Your task to perform on an android device: check storage Image 0: 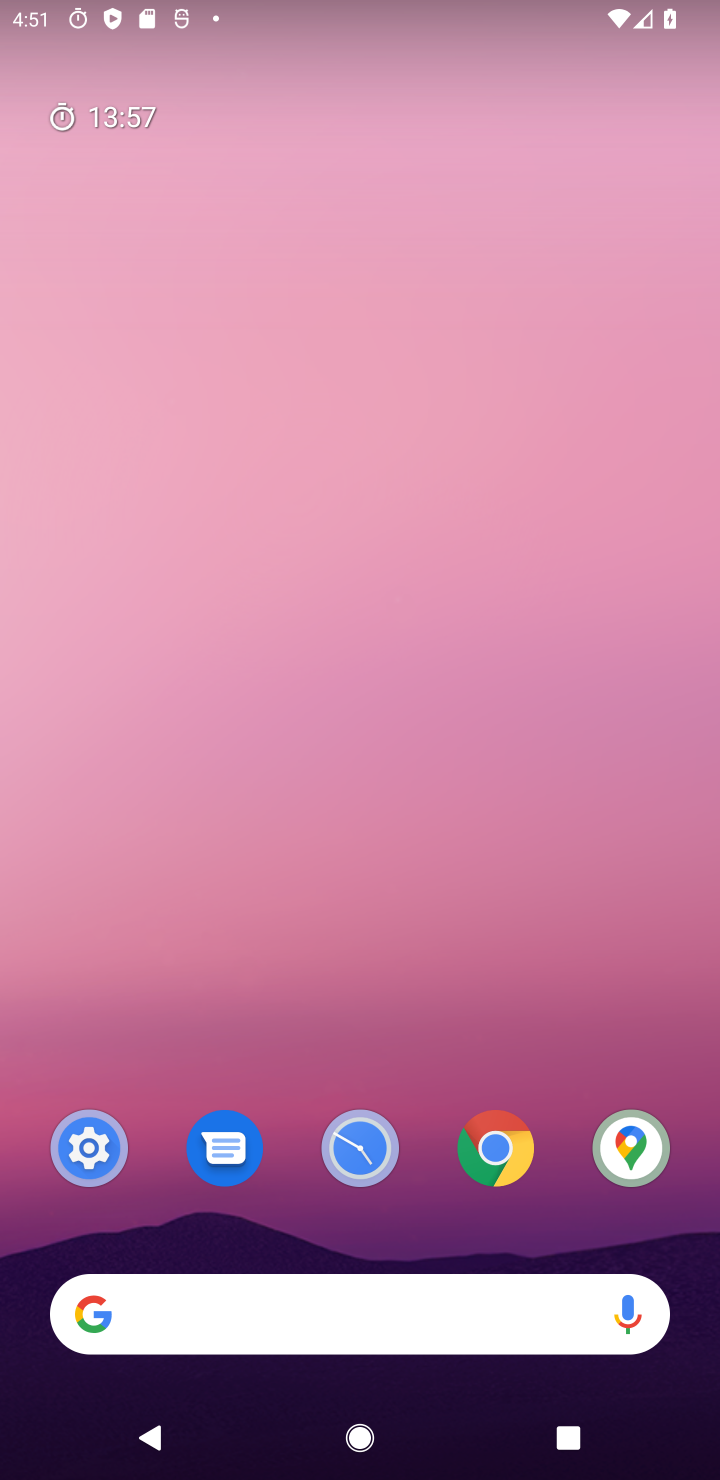
Step 0: drag from (406, 1196) to (530, 0)
Your task to perform on an android device: check storage Image 1: 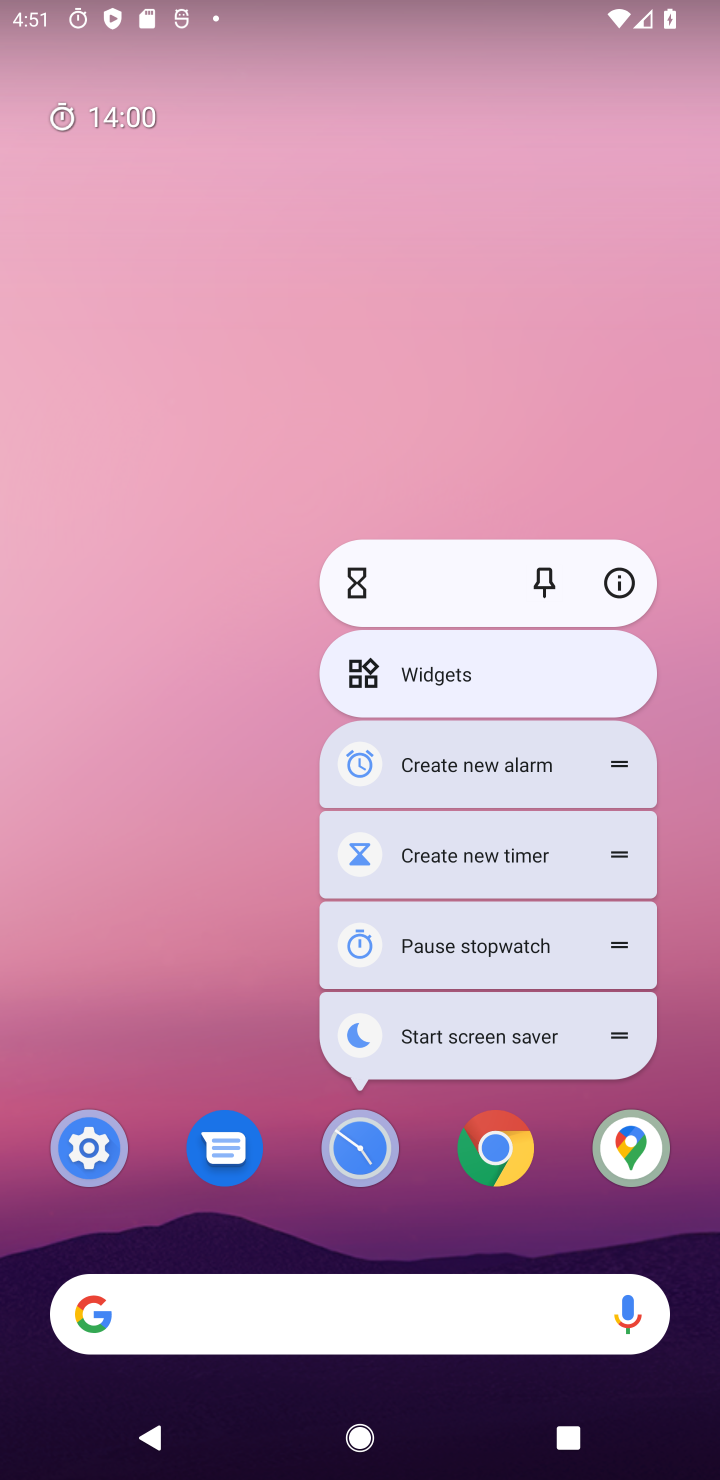
Step 1: click (191, 841)
Your task to perform on an android device: check storage Image 2: 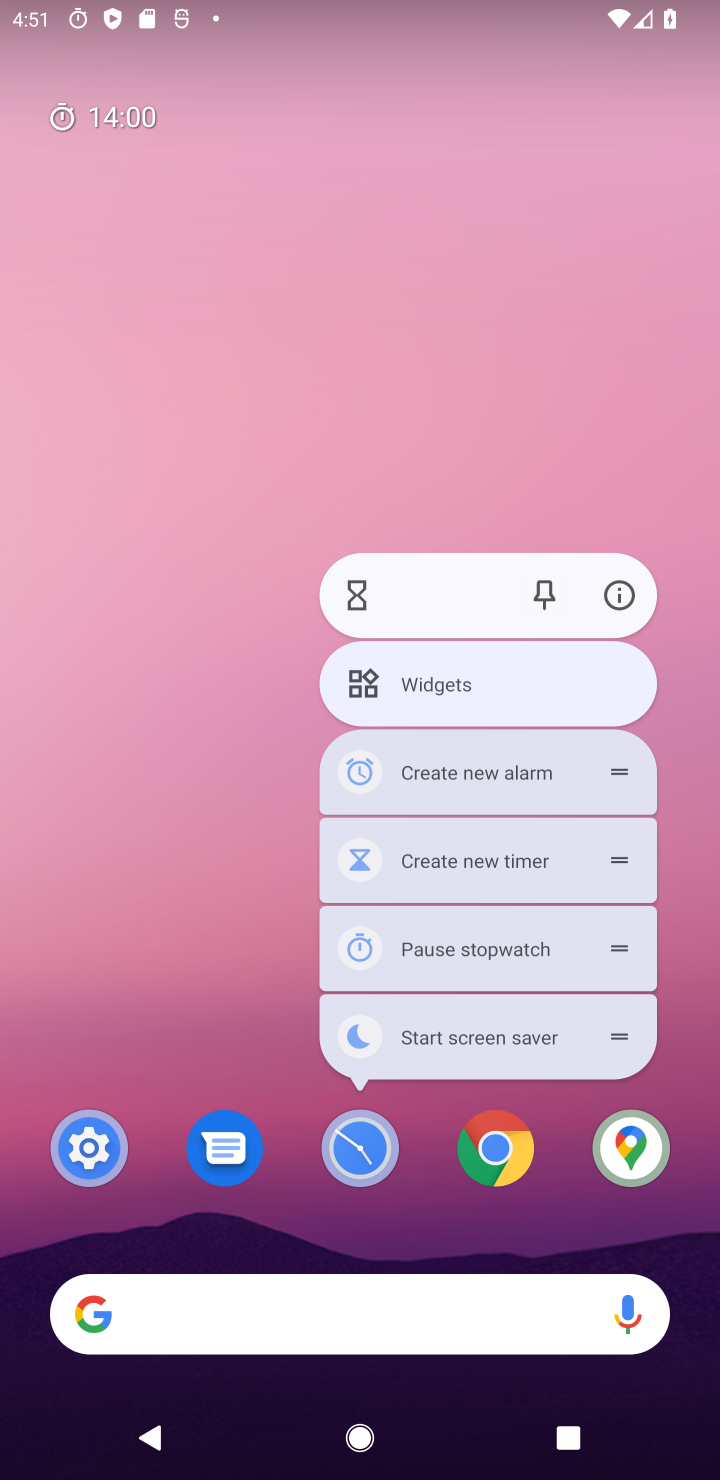
Step 2: drag from (397, 805) to (606, 16)
Your task to perform on an android device: check storage Image 3: 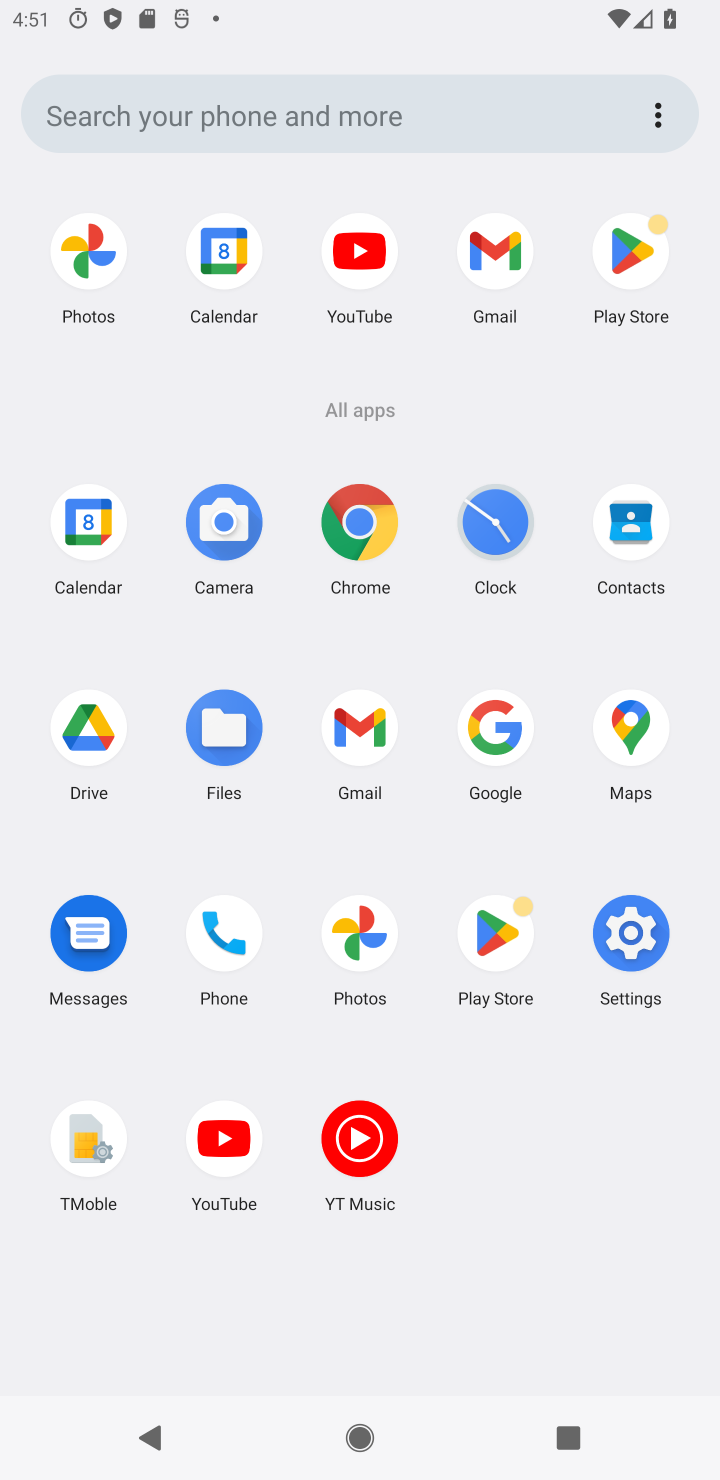
Step 3: click (620, 906)
Your task to perform on an android device: check storage Image 4: 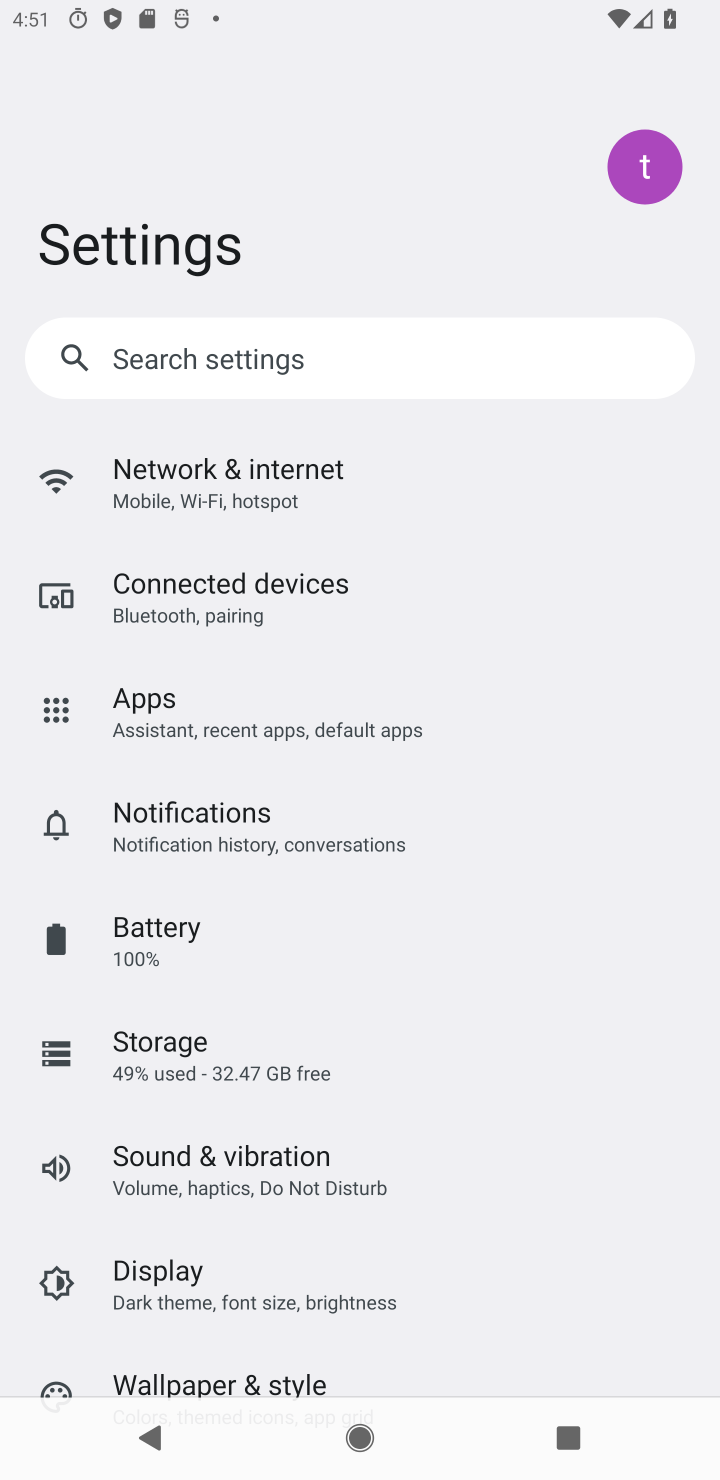
Step 4: click (187, 1092)
Your task to perform on an android device: check storage Image 5: 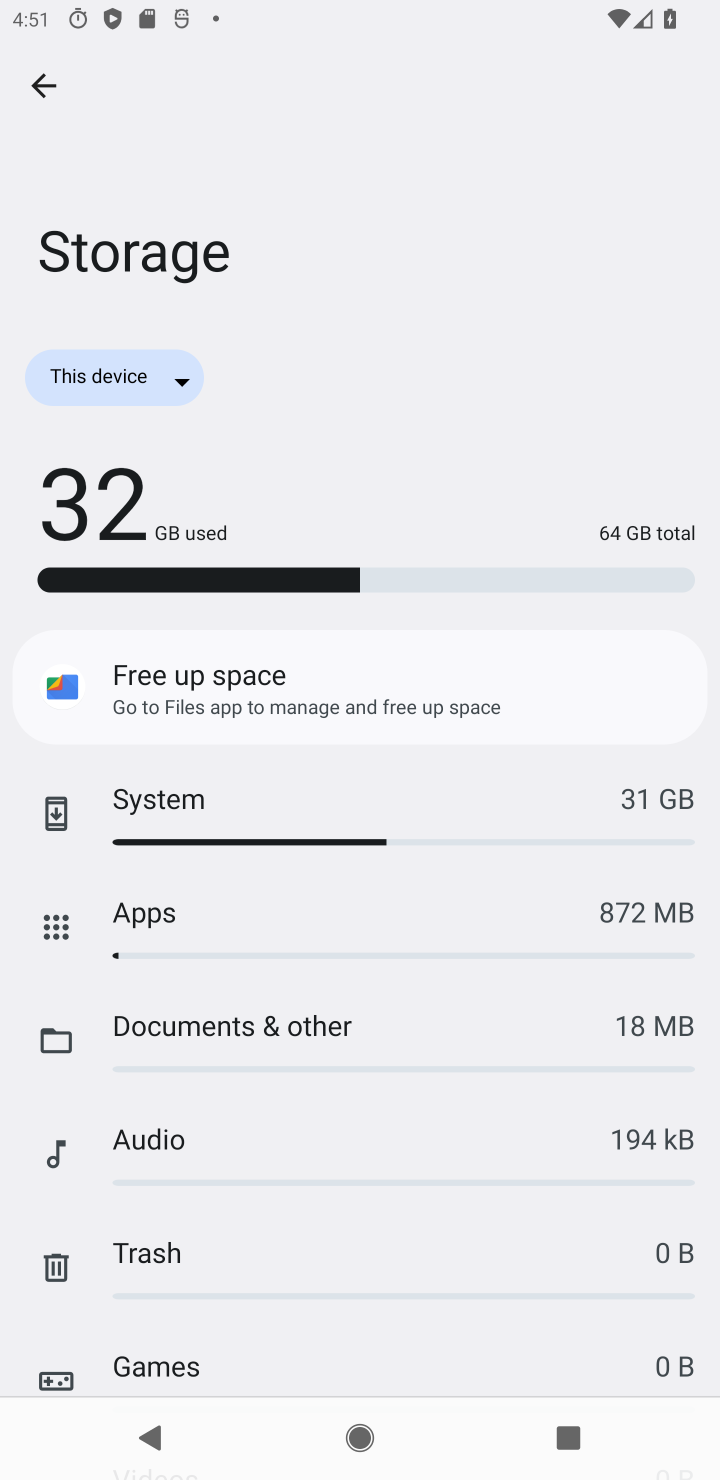
Step 5: task complete